Your task to perform on an android device: move an email to a new category in the gmail app Image 0: 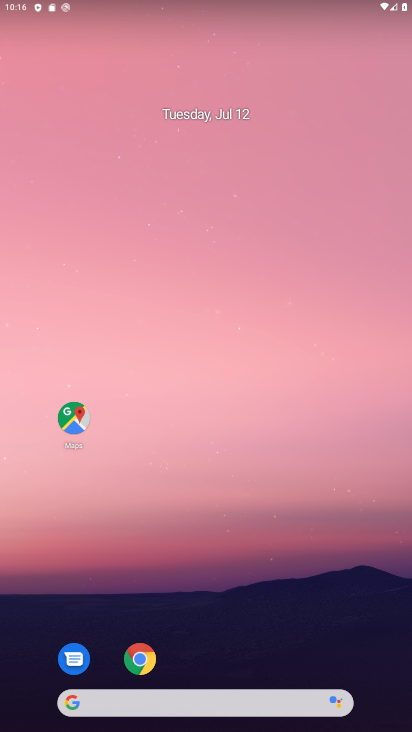
Step 0: drag from (168, 588) to (163, 190)
Your task to perform on an android device: move an email to a new category in the gmail app Image 1: 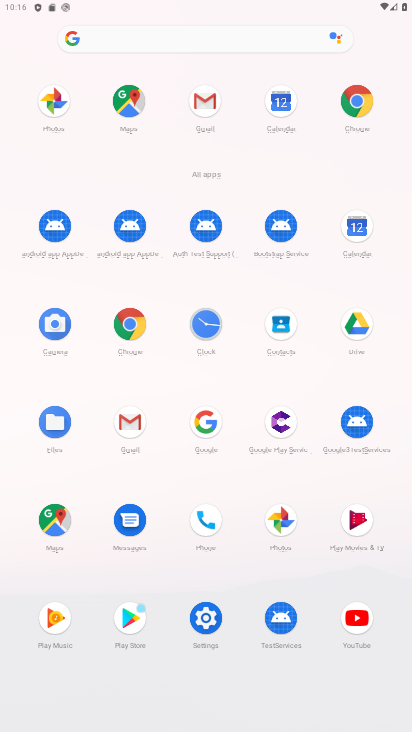
Step 1: click (207, 107)
Your task to perform on an android device: move an email to a new category in the gmail app Image 2: 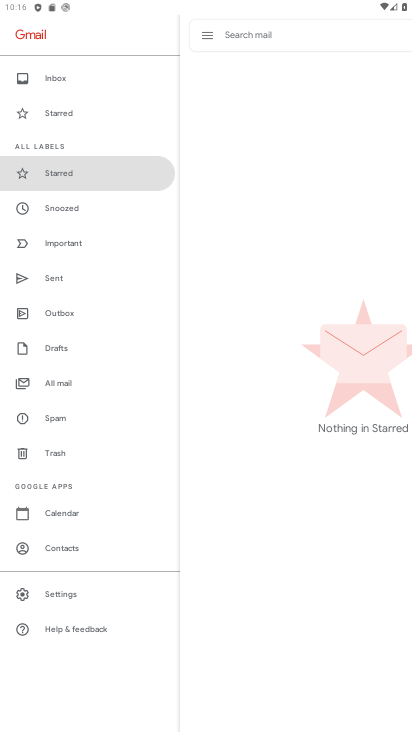
Step 2: click (54, 387)
Your task to perform on an android device: move an email to a new category in the gmail app Image 3: 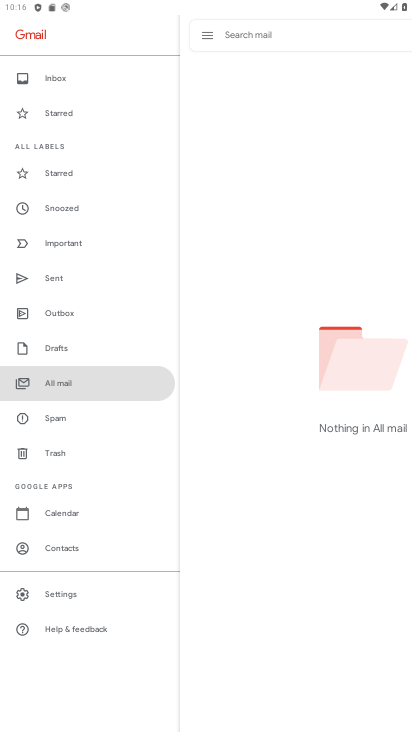
Step 3: task complete